Your task to perform on an android device: Open battery settings Image 0: 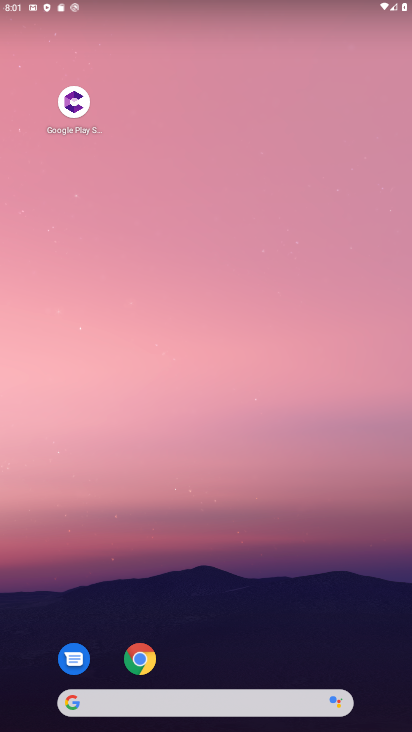
Step 0: drag from (247, 667) to (185, 289)
Your task to perform on an android device: Open battery settings Image 1: 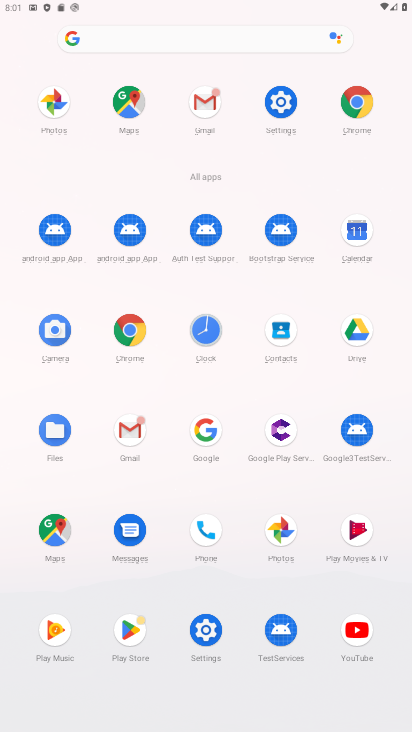
Step 1: click (274, 103)
Your task to perform on an android device: Open battery settings Image 2: 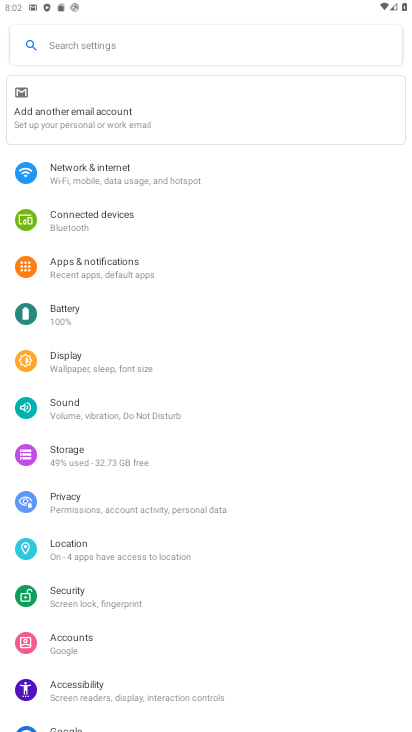
Step 2: click (102, 320)
Your task to perform on an android device: Open battery settings Image 3: 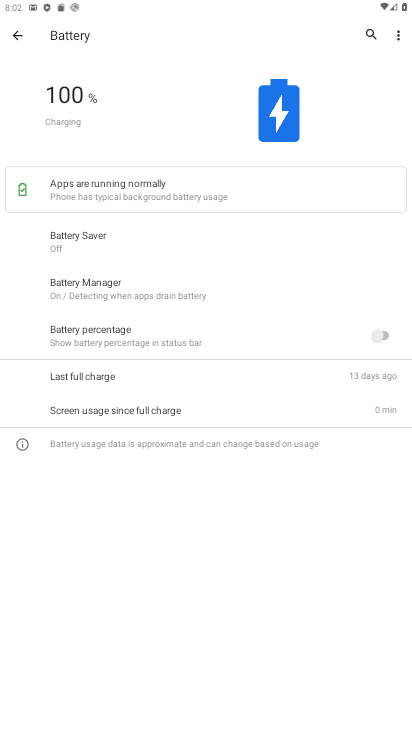
Step 3: task complete